Your task to perform on an android device: open the mobile data screen to see how much data has been used Image 0: 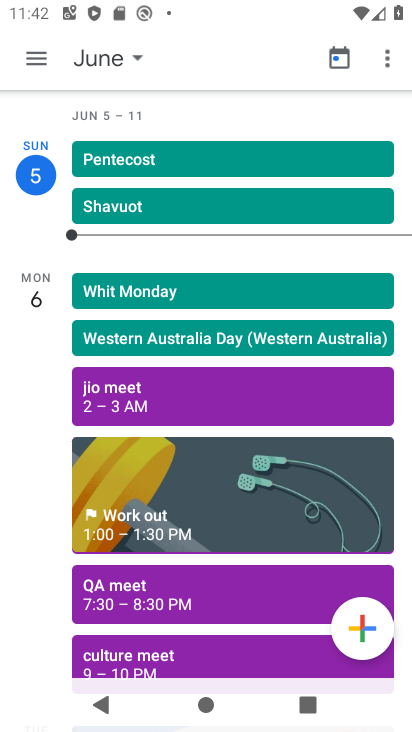
Step 0: press home button
Your task to perform on an android device: open the mobile data screen to see how much data has been used Image 1: 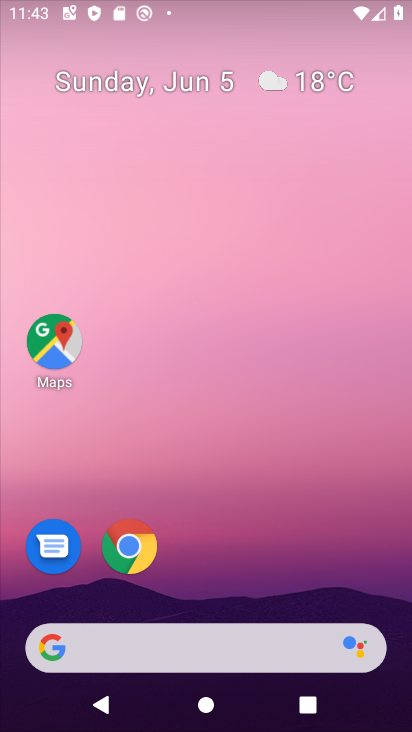
Step 1: drag from (300, 533) to (289, 80)
Your task to perform on an android device: open the mobile data screen to see how much data has been used Image 2: 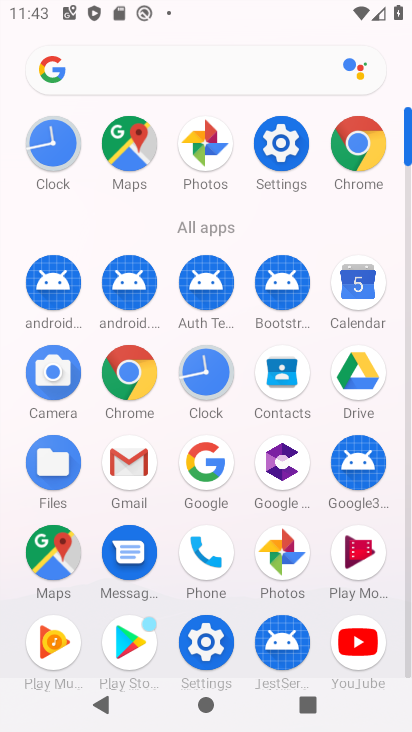
Step 2: click (281, 149)
Your task to perform on an android device: open the mobile data screen to see how much data has been used Image 3: 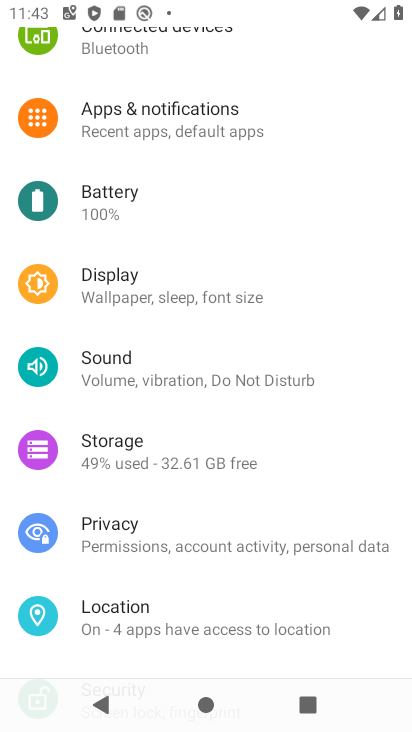
Step 3: drag from (354, 603) to (327, 372)
Your task to perform on an android device: open the mobile data screen to see how much data has been used Image 4: 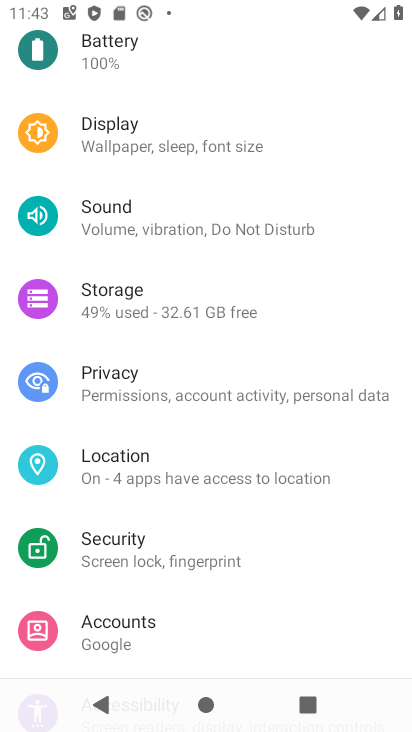
Step 4: drag from (361, 100) to (310, 468)
Your task to perform on an android device: open the mobile data screen to see how much data has been used Image 5: 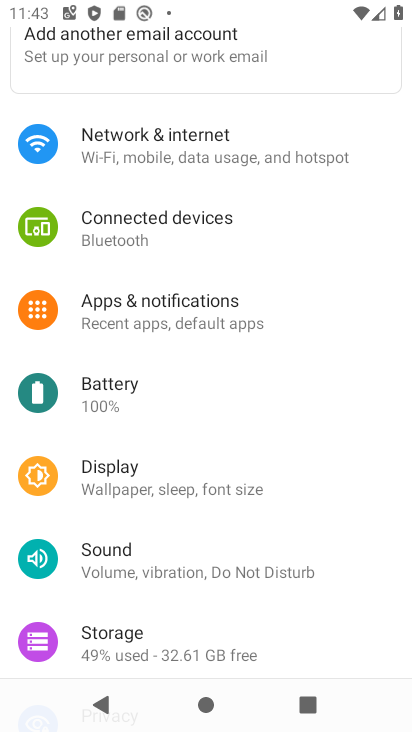
Step 5: click (142, 146)
Your task to perform on an android device: open the mobile data screen to see how much data has been used Image 6: 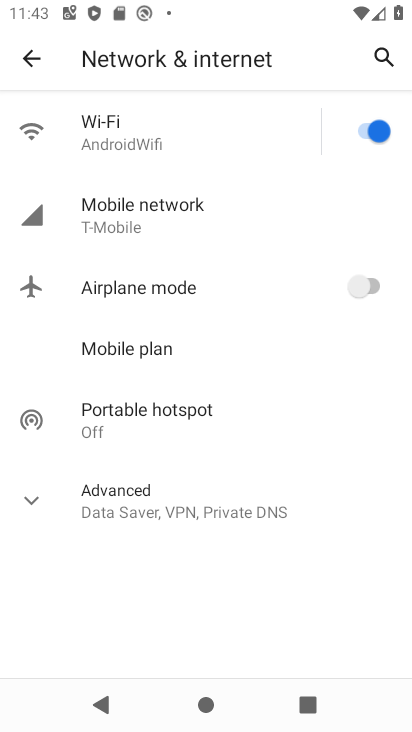
Step 6: click (123, 210)
Your task to perform on an android device: open the mobile data screen to see how much data has been used Image 7: 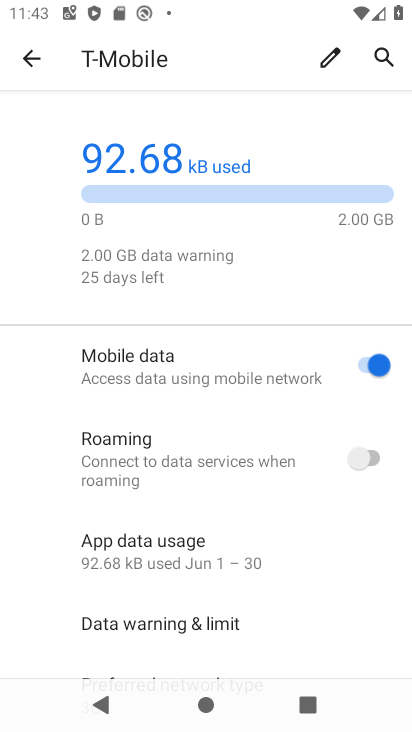
Step 7: task complete